Your task to perform on an android device: turn on data saver in the chrome app Image 0: 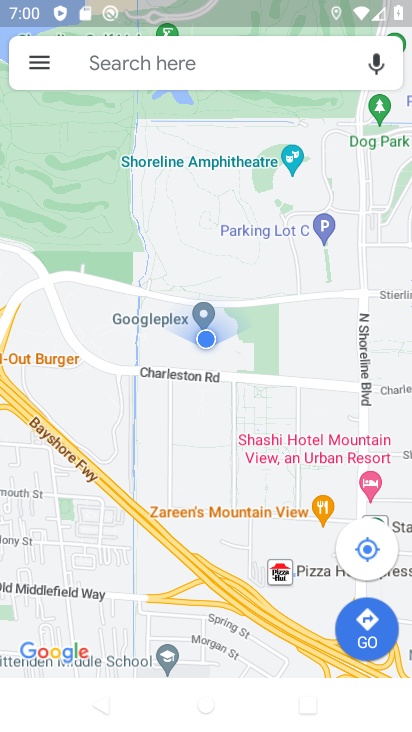
Step 0: click (162, 78)
Your task to perform on an android device: turn on data saver in the chrome app Image 1: 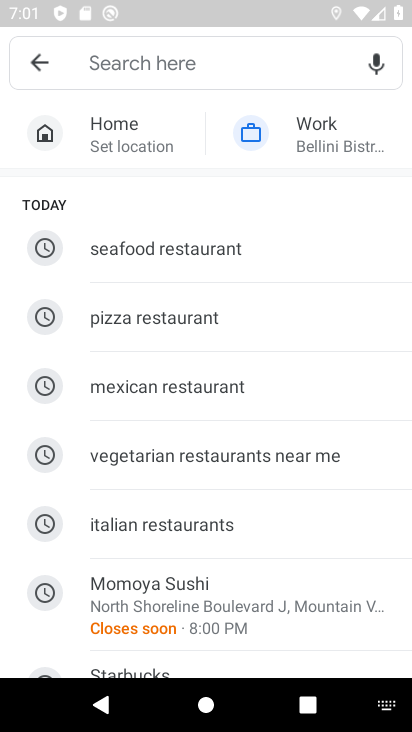
Step 1: click (364, 710)
Your task to perform on an android device: turn on data saver in the chrome app Image 2: 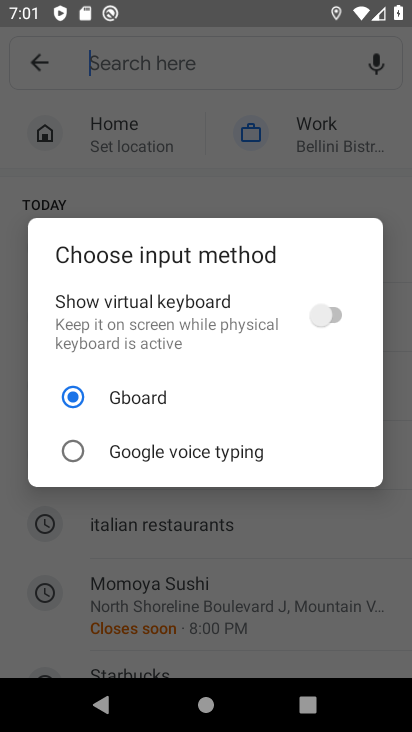
Step 2: click (333, 318)
Your task to perform on an android device: turn on data saver in the chrome app Image 3: 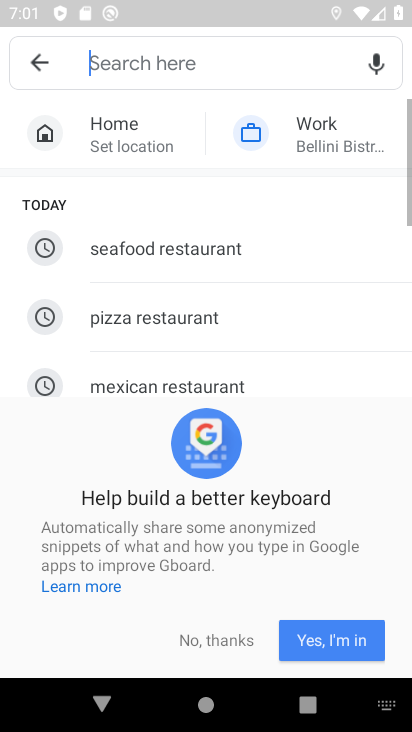
Step 3: press home button
Your task to perform on an android device: turn on data saver in the chrome app Image 4: 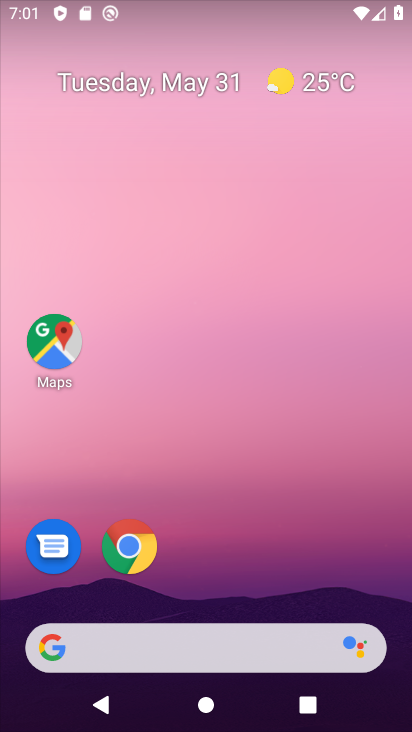
Step 4: click (124, 554)
Your task to perform on an android device: turn on data saver in the chrome app Image 5: 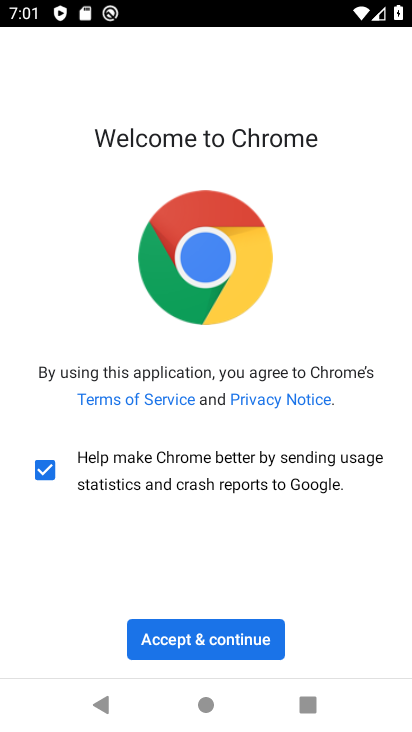
Step 5: click (207, 628)
Your task to perform on an android device: turn on data saver in the chrome app Image 6: 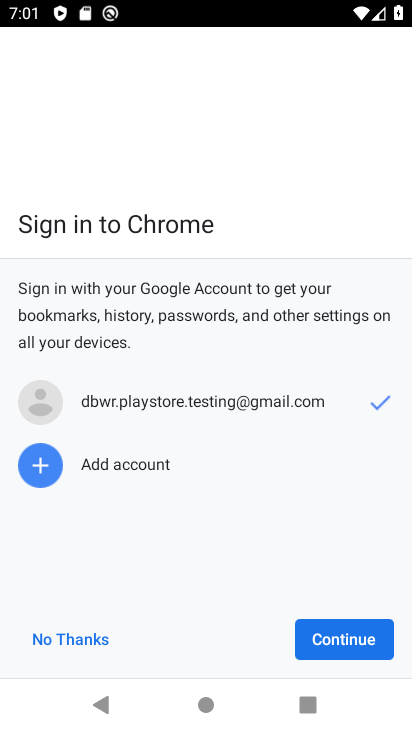
Step 6: click (335, 627)
Your task to perform on an android device: turn on data saver in the chrome app Image 7: 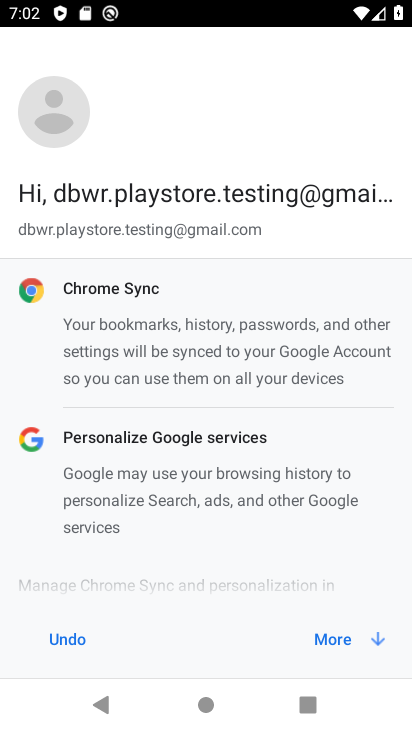
Step 7: click (376, 646)
Your task to perform on an android device: turn on data saver in the chrome app Image 8: 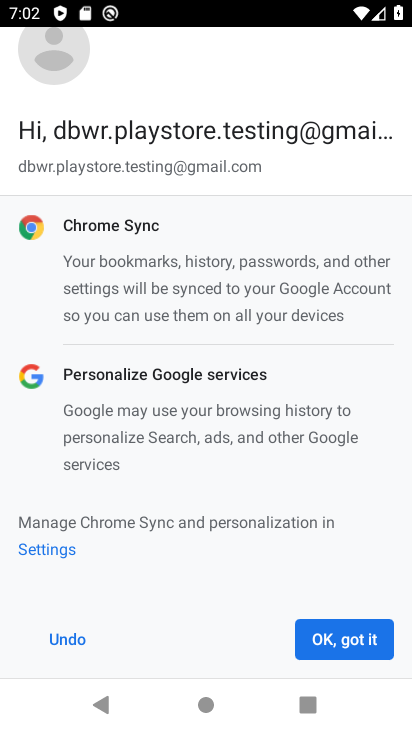
Step 8: click (376, 646)
Your task to perform on an android device: turn on data saver in the chrome app Image 9: 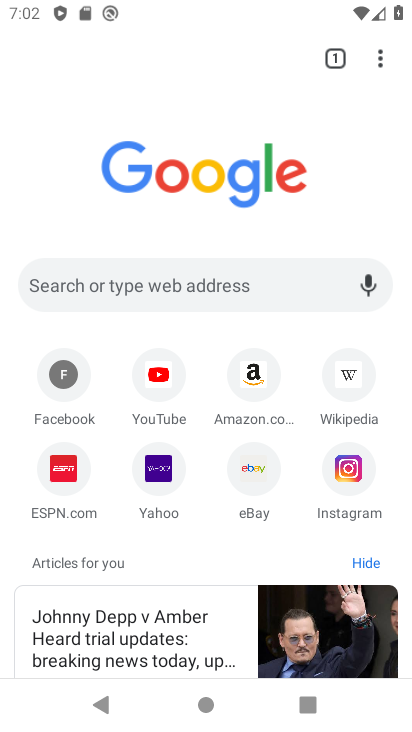
Step 9: click (378, 62)
Your task to perform on an android device: turn on data saver in the chrome app Image 10: 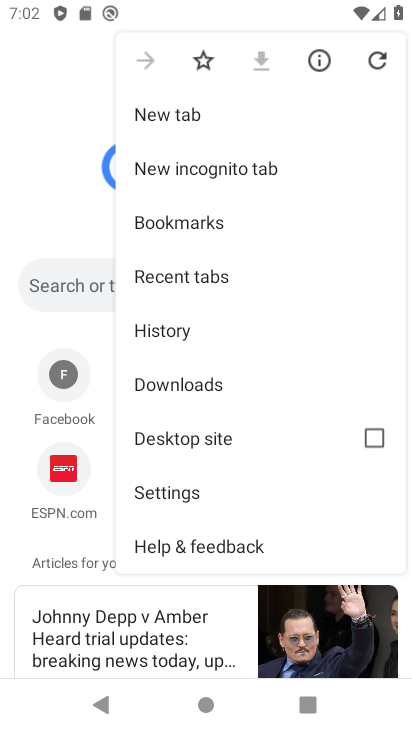
Step 10: click (172, 489)
Your task to perform on an android device: turn on data saver in the chrome app Image 11: 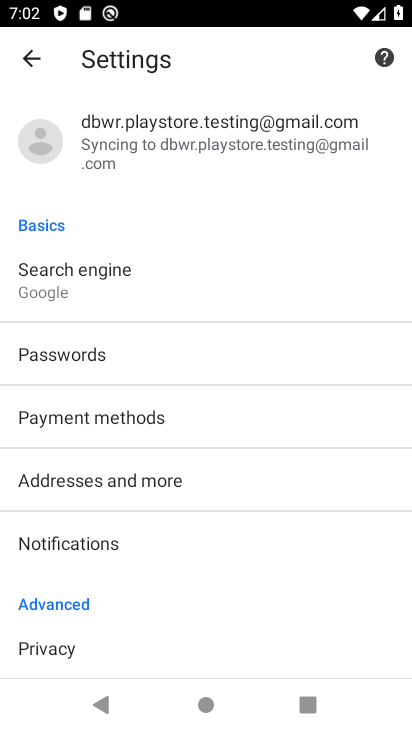
Step 11: drag from (194, 530) to (270, 122)
Your task to perform on an android device: turn on data saver in the chrome app Image 12: 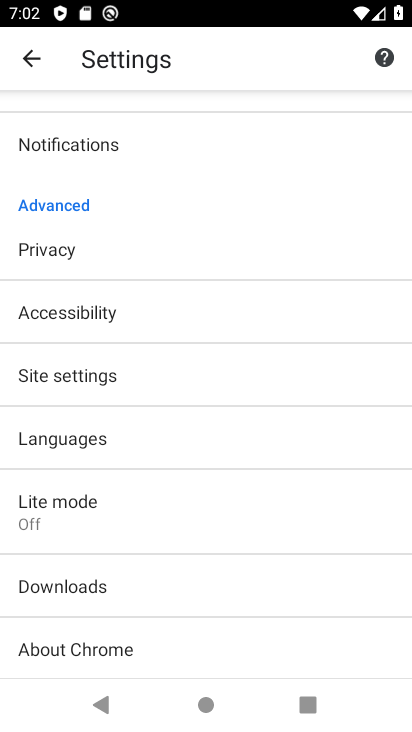
Step 12: click (95, 504)
Your task to perform on an android device: turn on data saver in the chrome app Image 13: 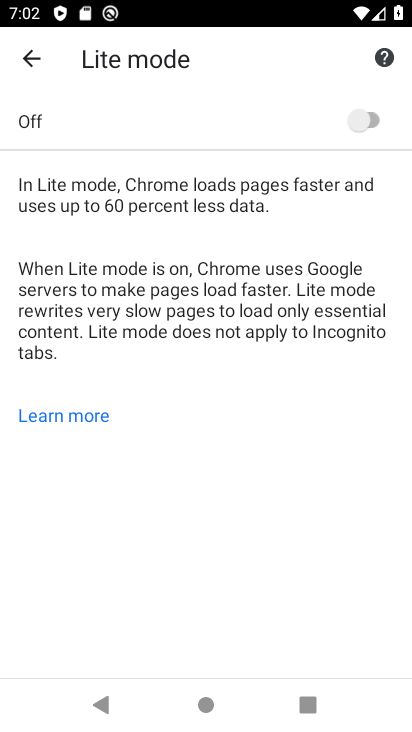
Step 13: click (380, 112)
Your task to perform on an android device: turn on data saver in the chrome app Image 14: 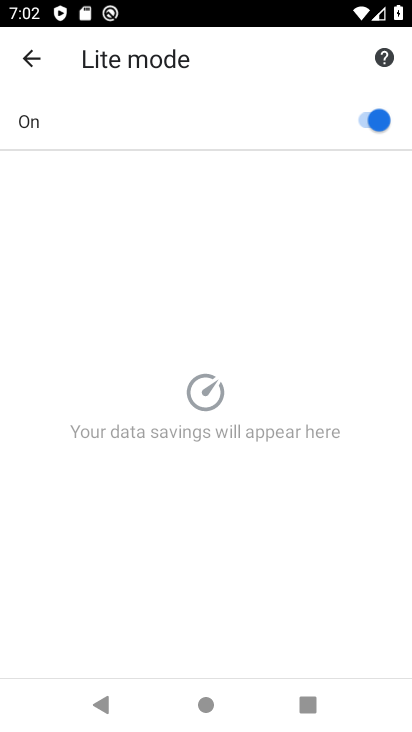
Step 14: task complete